Your task to perform on an android device: turn pop-ups off in chrome Image 0: 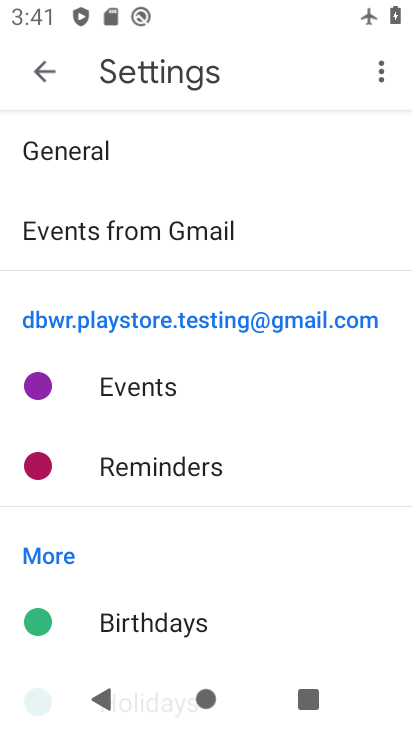
Step 0: press home button
Your task to perform on an android device: turn pop-ups off in chrome Image 1: 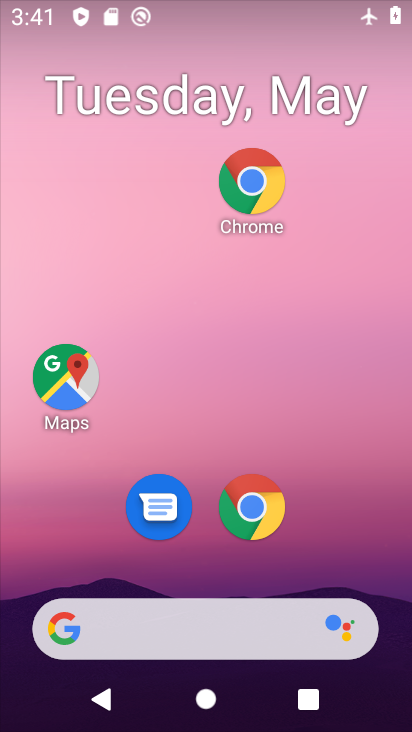
Step 1: drag from (352, 514) to (355, 175)
Your task to perform on an android device: turn pop-ups off in chrome Image 2: 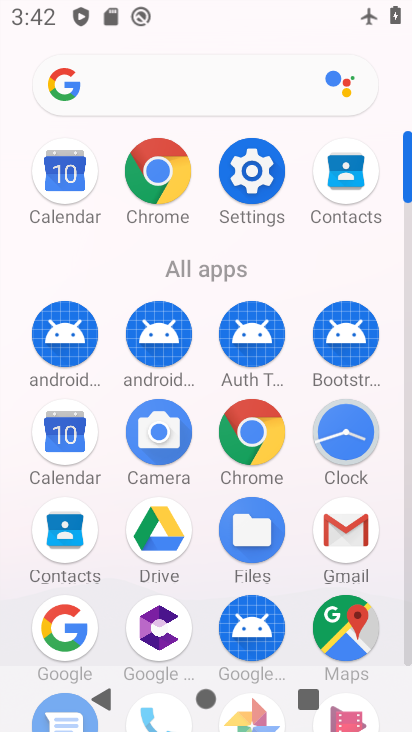
Step 2: click (243, 188)
Your task to perform on an android device: turn pop-ups off in chrome Image 3: 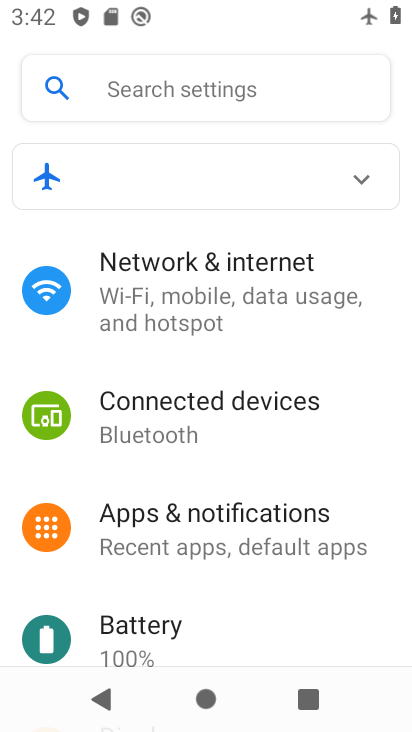
Step 3: press home button
Your task to perform on an android device: turn pop-ups off in chrome Image 4: 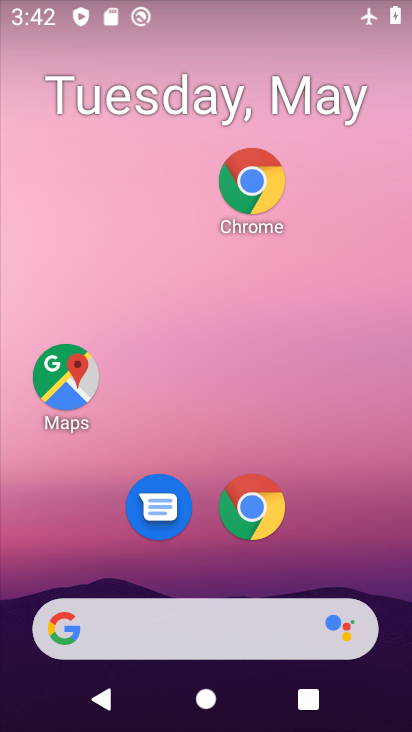
Step 4: click (256, 505)
Your task to perform on an android device: turn pop-ups off in chrome Image 5: 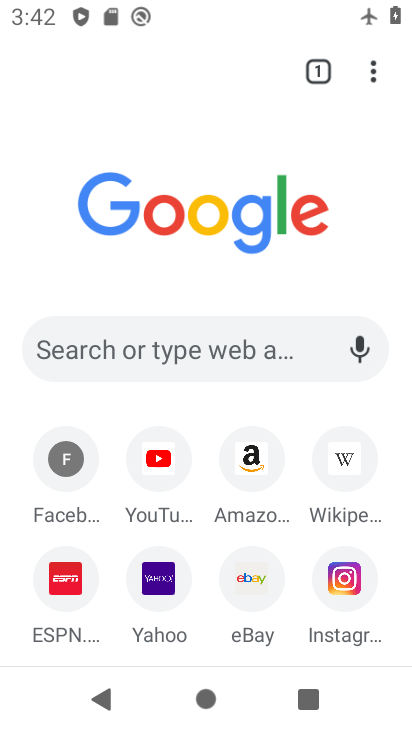
Step 5: drag from (376, 81) to (105, 518)
Your task to perform on an android device: turn pop-ups off in chrome Image 6: 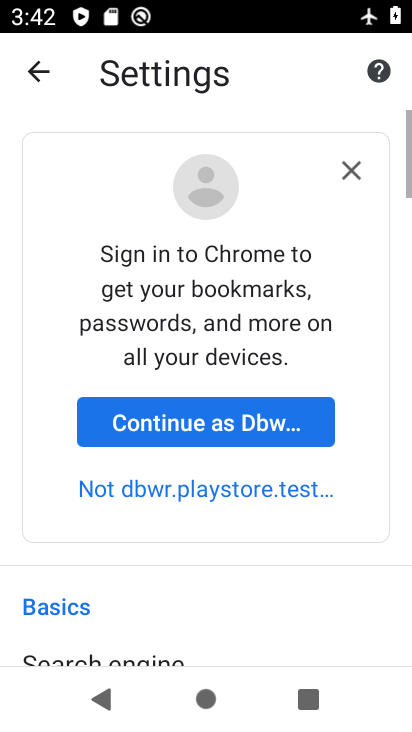
Step 6: drag from (178, 585) to (192, 185)
Your task to perform on an android device: turn pop-ups off in chrome Image 7: 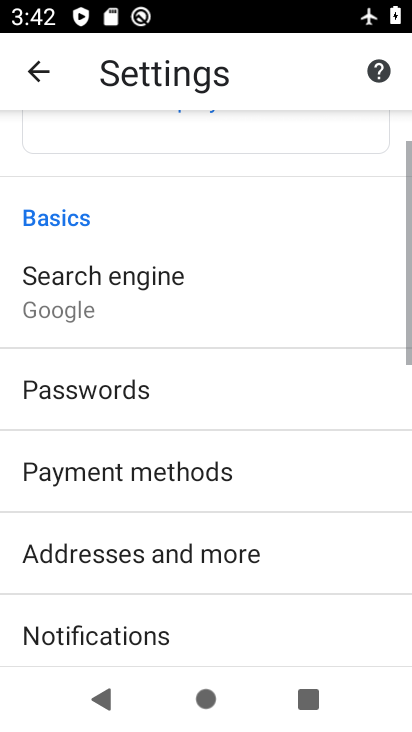
Step 7: click (192, 223)
Your task to perform on an android device: turn pop-ups off in chrome Image 8: 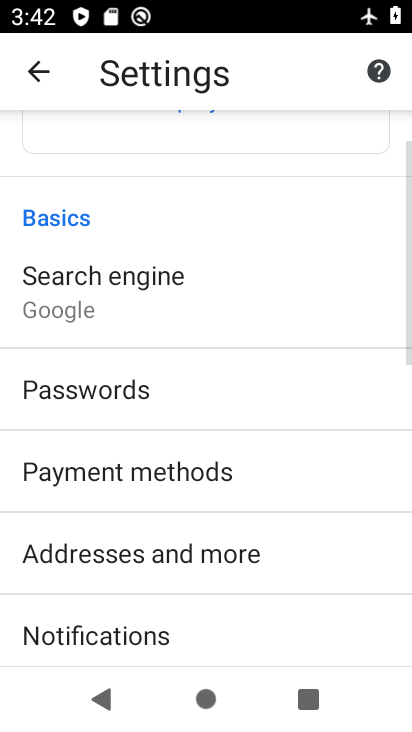
Step 8: drag from (268, 255) to (256, 299)
Your task to perform on an android device: turn pop-ups off in chrome Image 9: 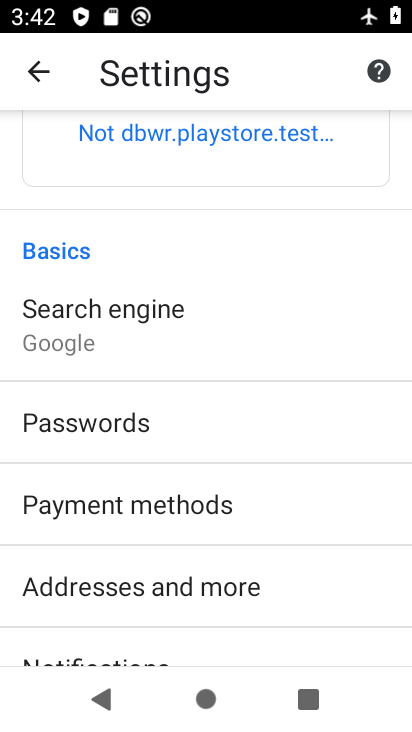
Step 9: drag from (199, 617) to (172, 294)
Your task to perform on an android device: turn pop-ups off in chrome Image 10: 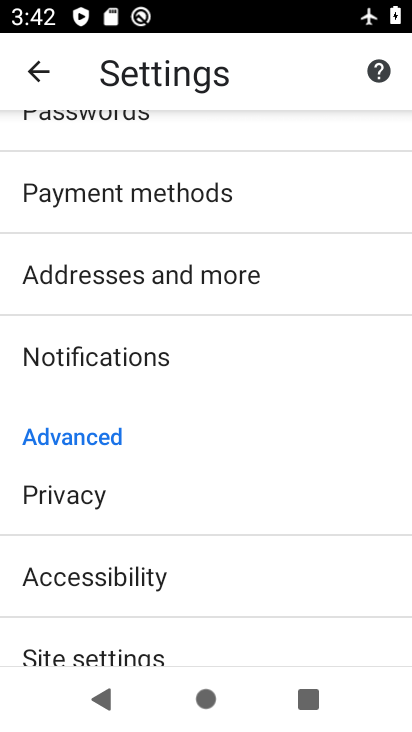
Step 10: drag from (246, 575) to (269, 276)
Your task to perform on an android device: turn pop-ups off in chrome Image 11: 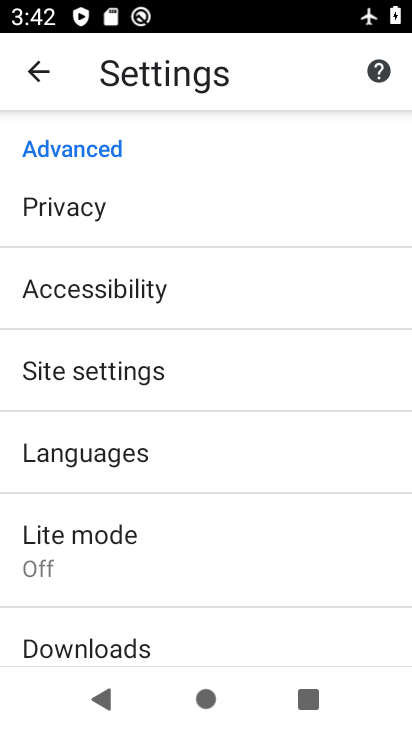
Step 11: drag from (288, 550) to (233, 143)
Your task to perform on an android device: turn pop-ups off in chrome Image 12: 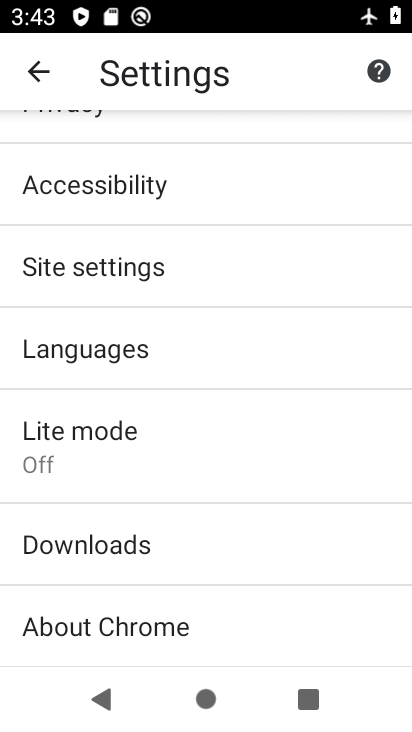
Step 12: click (157, 281)
Your task to perform on an android device: turn pop-ups off in chrome Image 13: 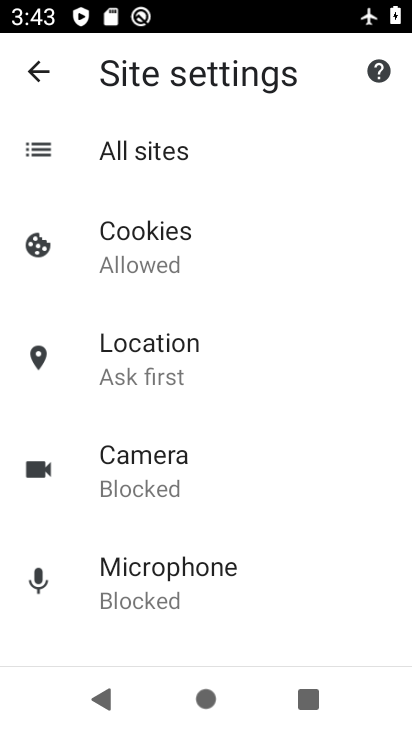
Step 13: drag from (211, 507) to (202, 227)
Your task to perform on an android device: turn pop-ups off in chrome Image 14: 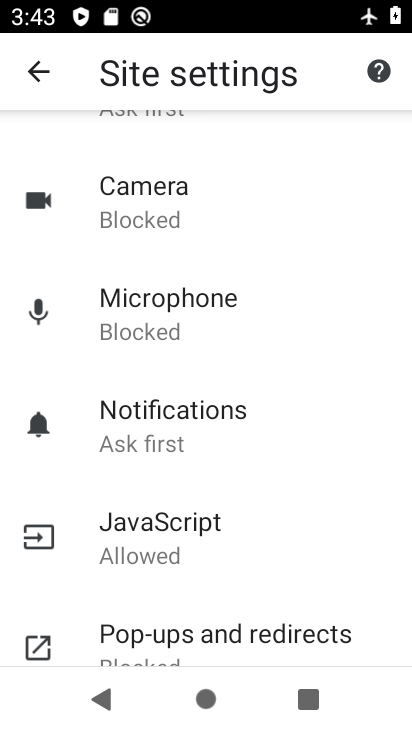
Step 14: drag from (213, 536) to (231, 260)
Your task to perform on an android device: turn pop-ups off in chrome Image 15: 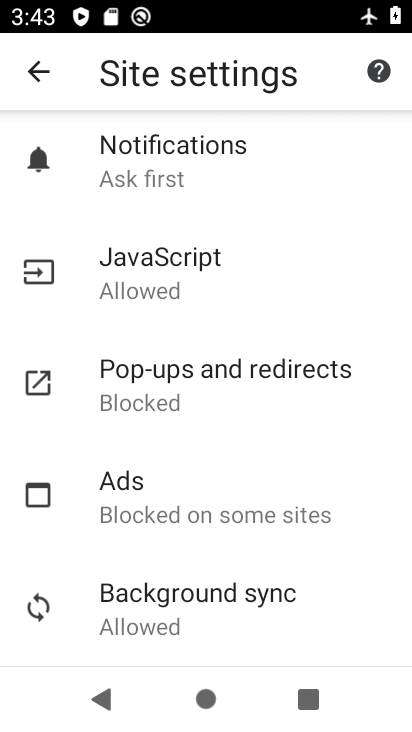
Step 15: click (242, 387)
Your task to perform on an android device: turn pop-ups off in chrome Image 16: 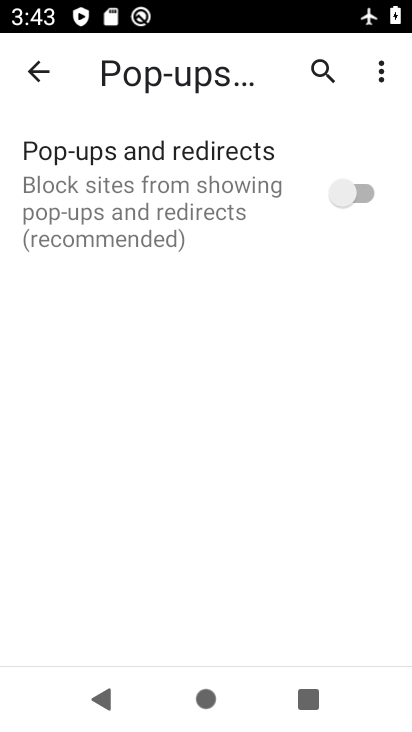
Step 16: task complete